Your task to perform on an android device: turn off wifi Image 0: 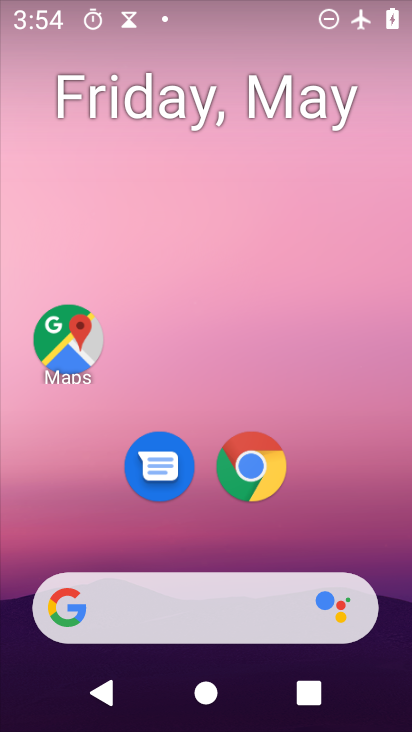
Step 0: drag from (322, 489) to (259, 65)
Your task to perform on an android device: turn off wifi Image 1: 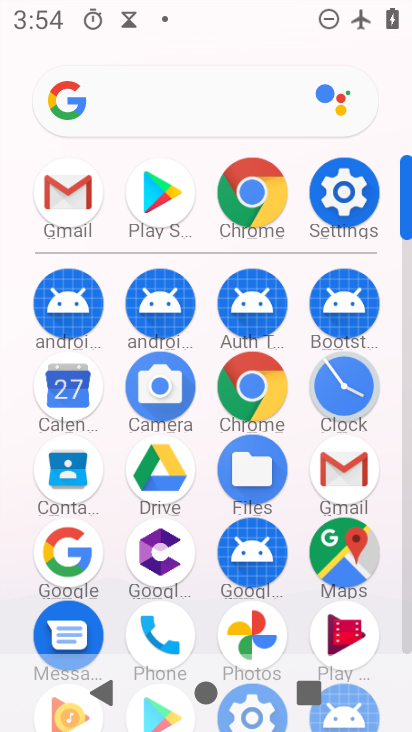
Step 1: click (328, 194)
Your task to perform on an android device: turn off wifi Image 2: 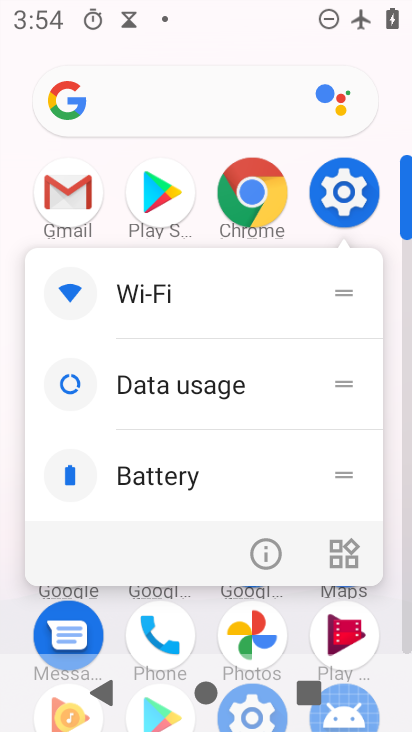
Step 2: click (336, 193)
Your task to perform on an android device: turn off wifi Image 3: 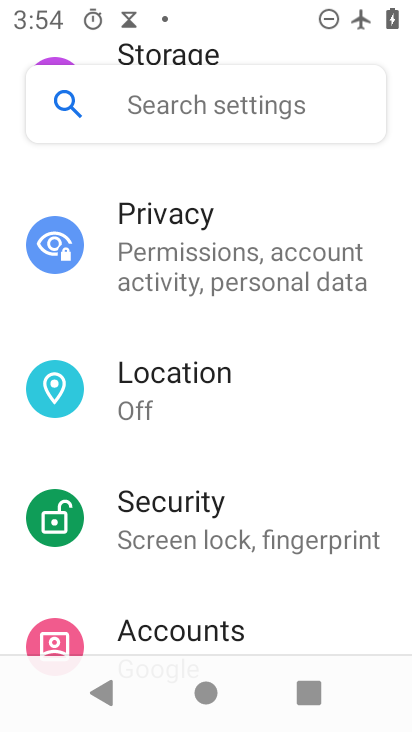
Step 3: drag from (326, 190) to (388, 731)
Your task to perform on an android device: turn off wifi Image 4: 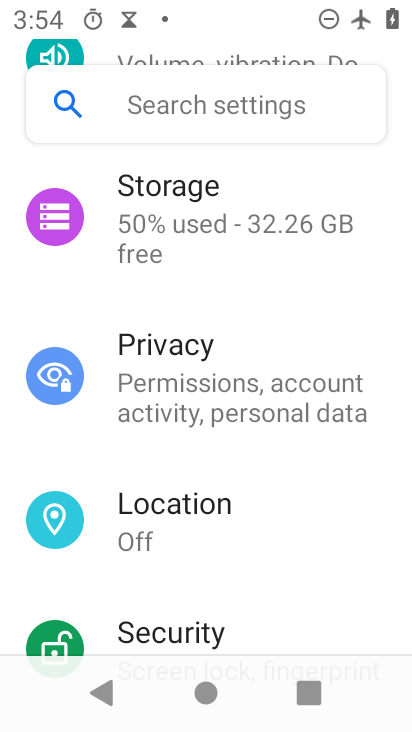
Step 4: drag from (367, 191) to (381, 681)
Your task to perform on an android device: turn off wifi Image 5: 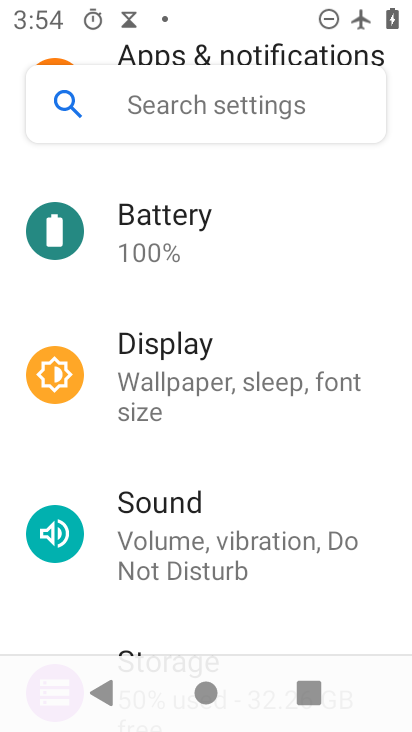
Step 5: drag from (304, 199) to (317, 656)
Your task to perform on an android device: turn off wifi Image 6: 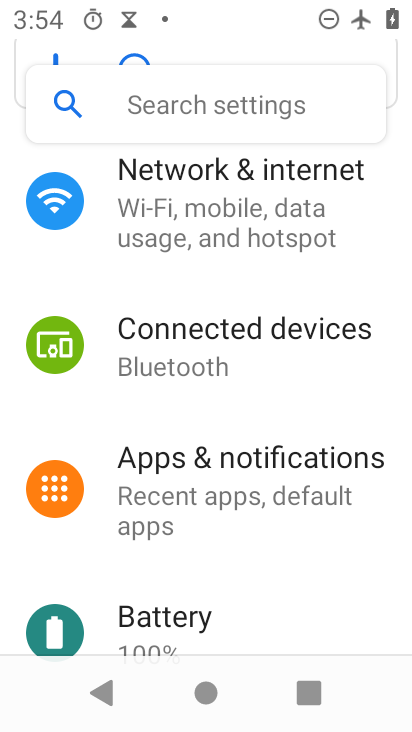
Step 6: drag from (243, 208) to (234, 648)
Your task to perform on an android device: turn off wifi Image 7: 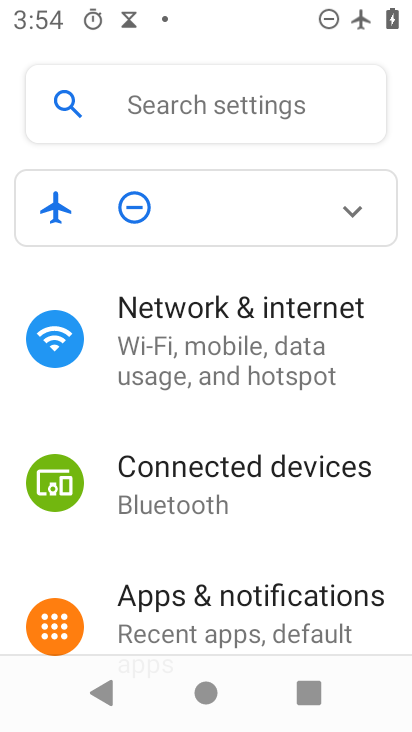
Step 7: click (199, 352)
Your task to perform on an android device: turn off wifi Image 8: 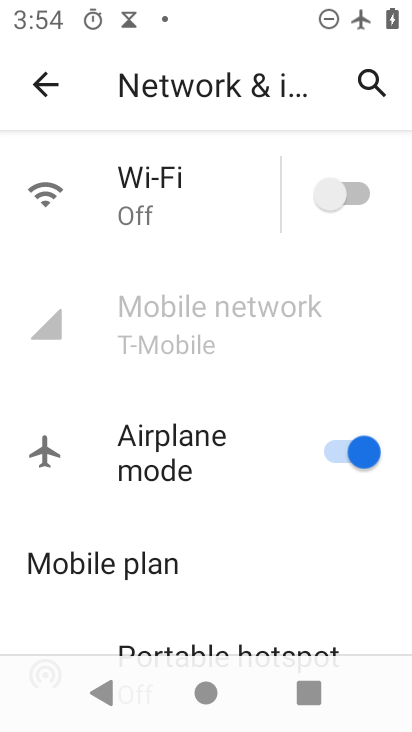
Step 8: task complete